Your task to perform on an android device: open app "Cash App" (install if not already installed) and go to login screen Image 0: 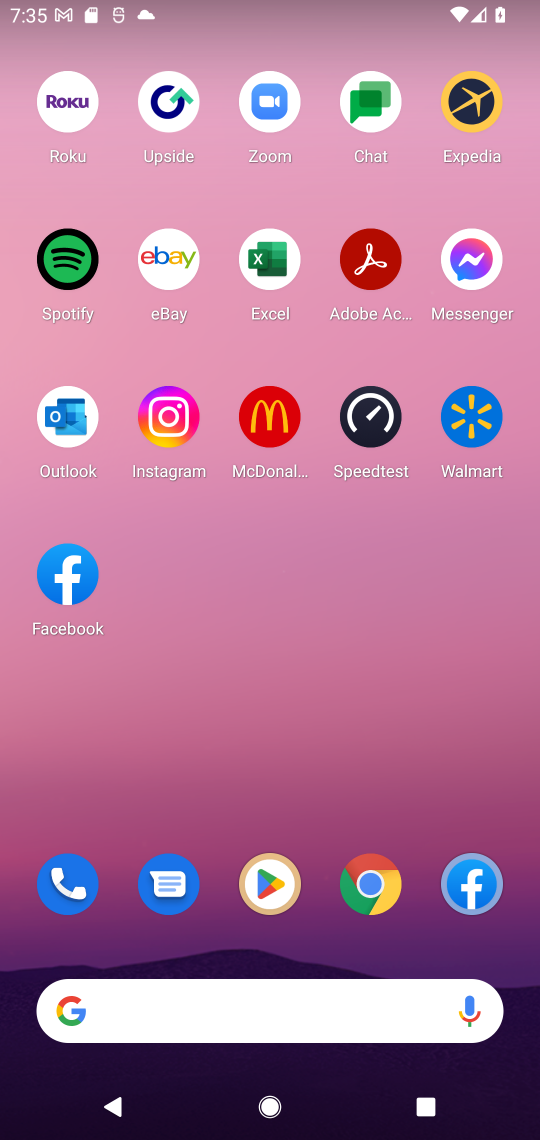
Step 0: drag from (292, 1009) to (379, 73)
Your task to perform on an android device: open app "Cash App" (install if not already installed) and go to login screen Image 1: 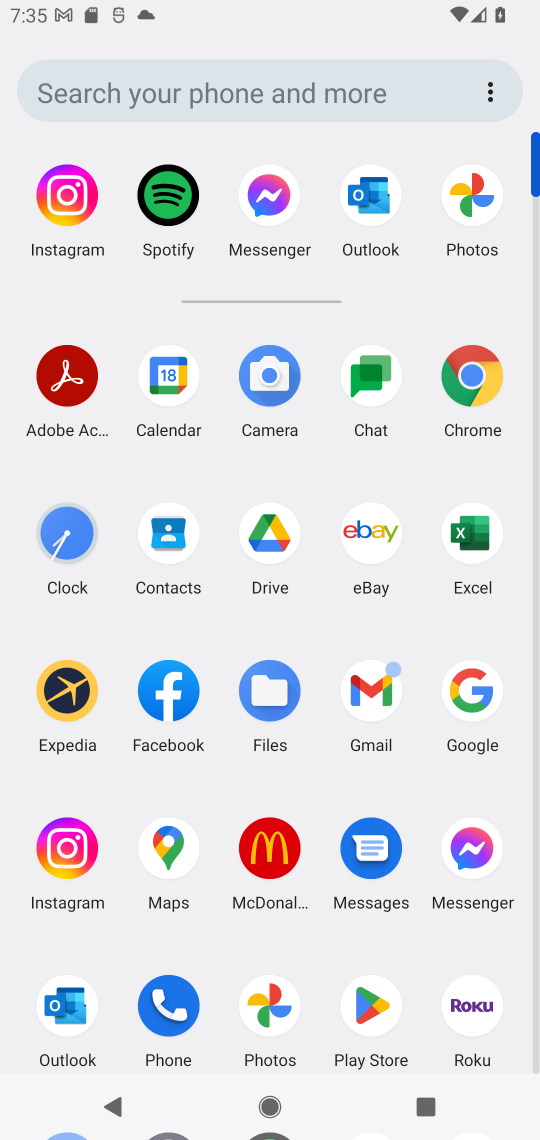
Step 1: click (380, 1010)
Your task to perform on an android device: open app "Cash App" (install if not already installed) and go to login screen Image 2: 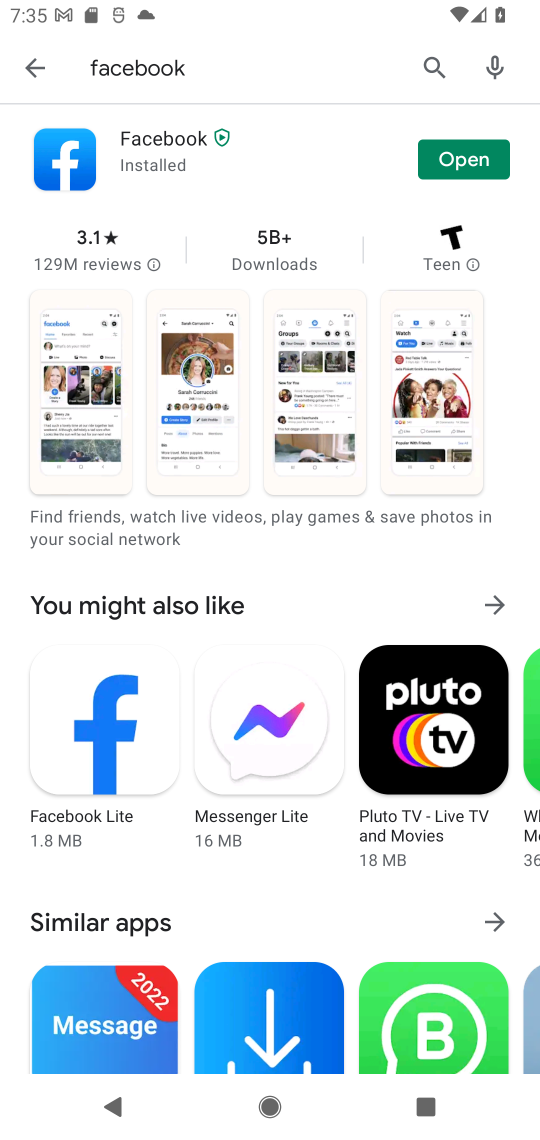
Step 2: press back button
Your task to perform on an android device: open app "Cash App" (install if not already installed) and go to login screen Image 3: 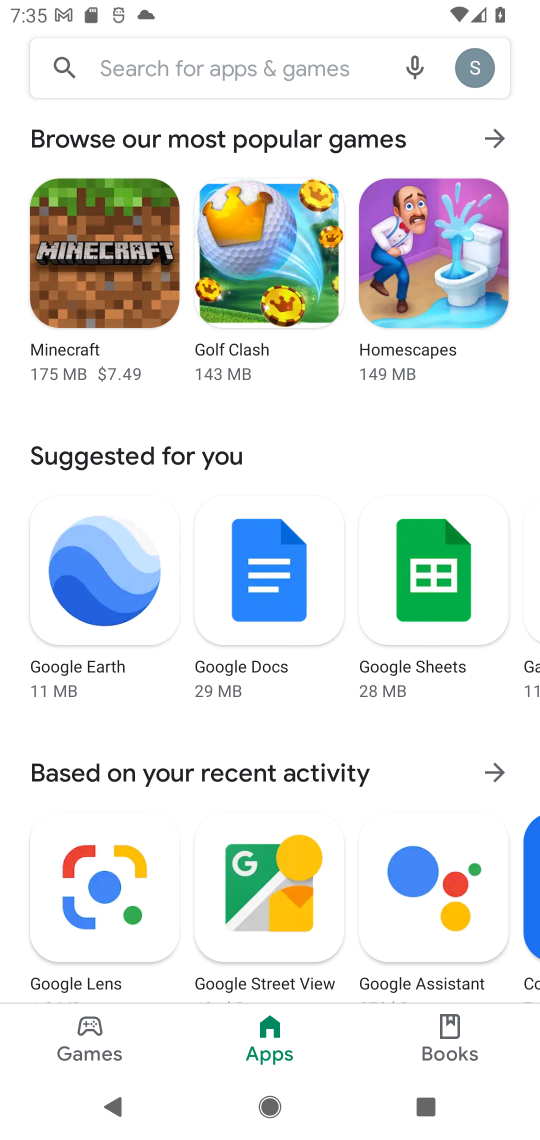
Step 3: click (258, 70)
Your task to perform on an android device: open app "Cash App" (install if not already installed) and go to login screen Image 4: 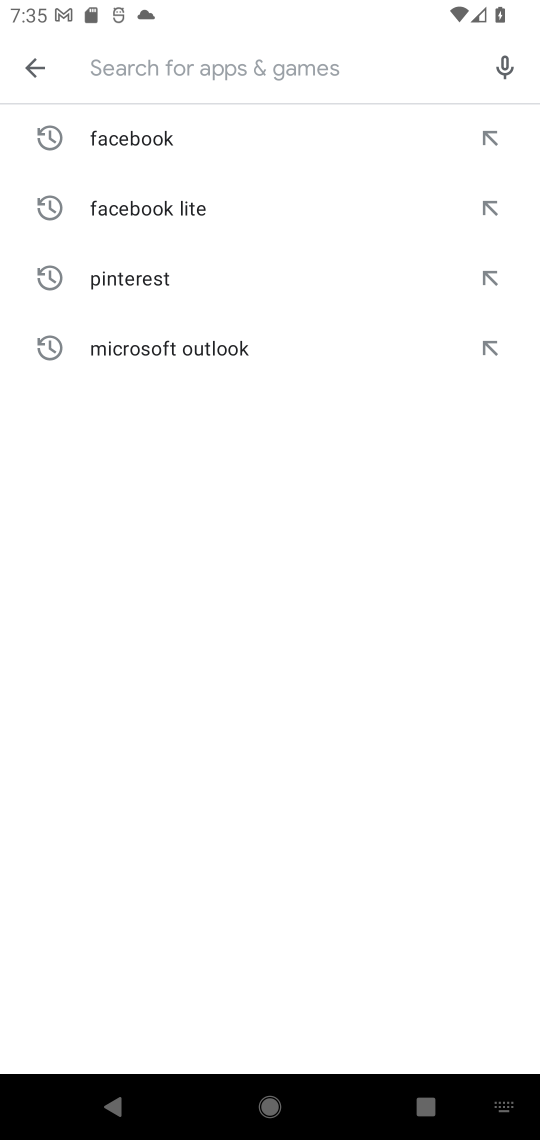
Step 4: type "Cash App"
Your task to perform on an android device: open app "Cash App" (install if not already installed) and go to login screen Image 5: 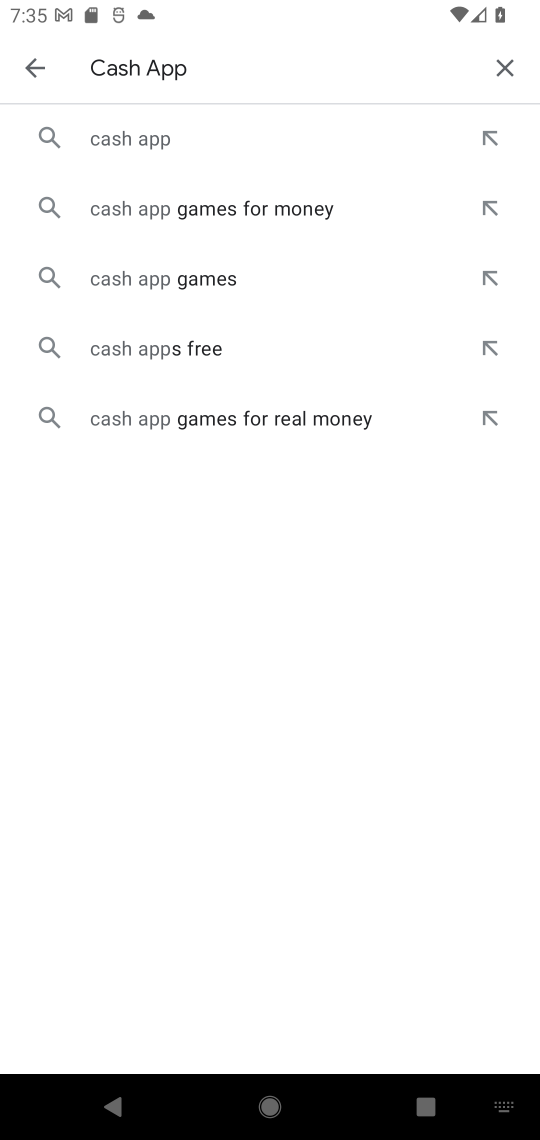
Step 5: click (142, 138)
Your task to perform on an android device: open app "Cash App" (install if not already installed) and go to login screen Image 6: 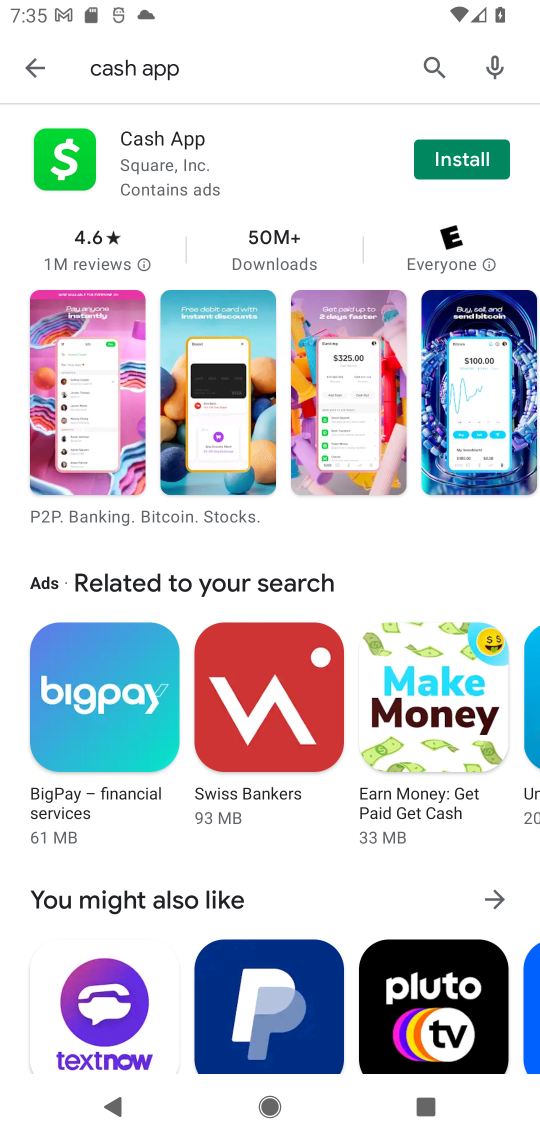
Step 6: click (447, 160)
Your task to perform on an android device: open app "Cash App" (install if not already installed) and go to login screen Image 7: 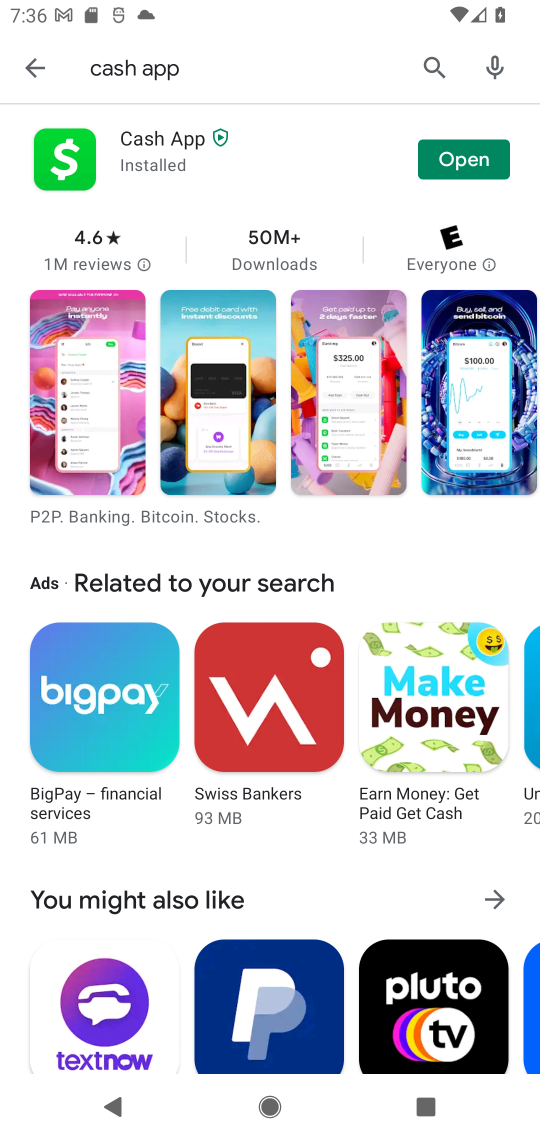
Step 7: click (447, 160)
Your task to perform on an android device: open app "Cash App" (install if not already installed) and go to login screen Image 8: 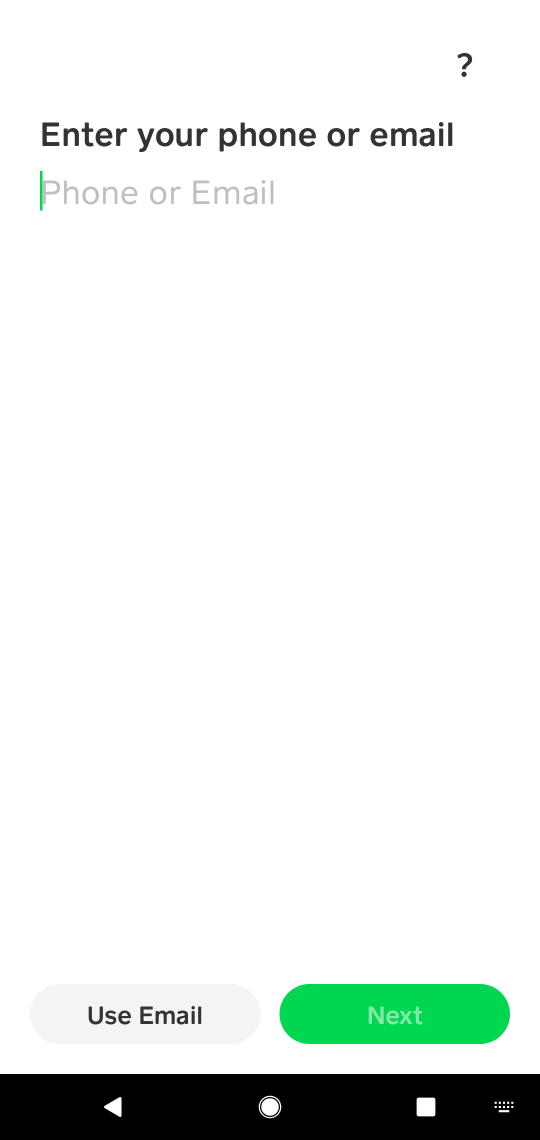
Step 8: task complete